Your task to perform on an android device: Open the Play Movies app and select the watchlist tab. Image 0: 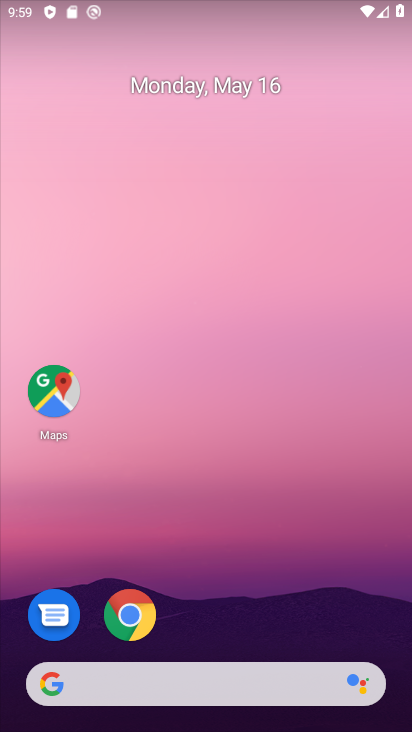
Step 0: drag from (224, 609) to (302, 23)
Your task to perform on an android device: Open the Play Movies app and select the watchlist tab. Image 1: 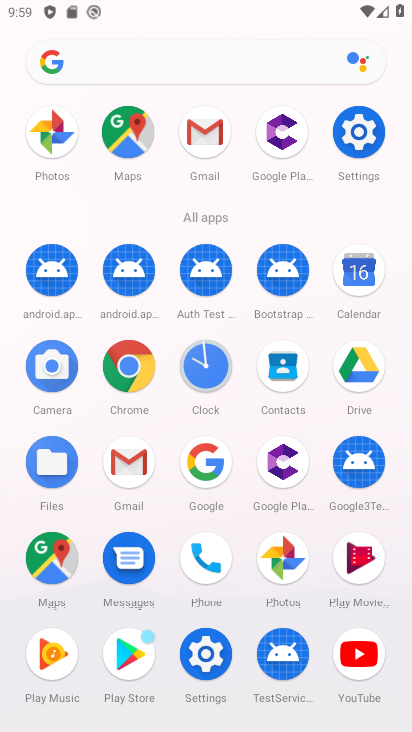
Step 1: click (351, 557)
Your task to perform on an android device: Open the Play Movies app and select the watchlist tab. Image 2: 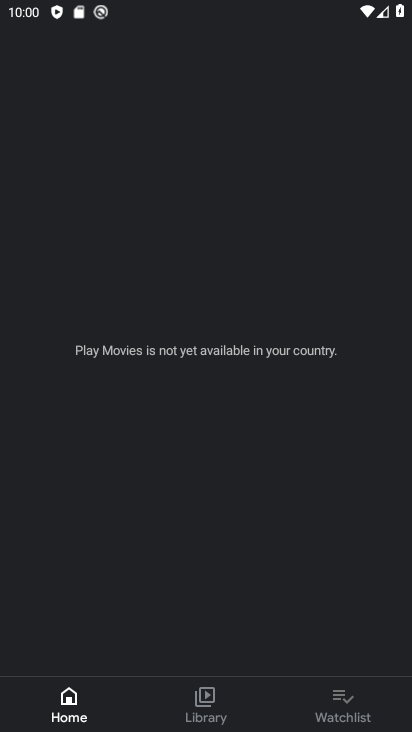
Step 2: click (345, 713)
Your task to perform on an android device: Open the Play Movies app and select the watchlist tab. Image 3: 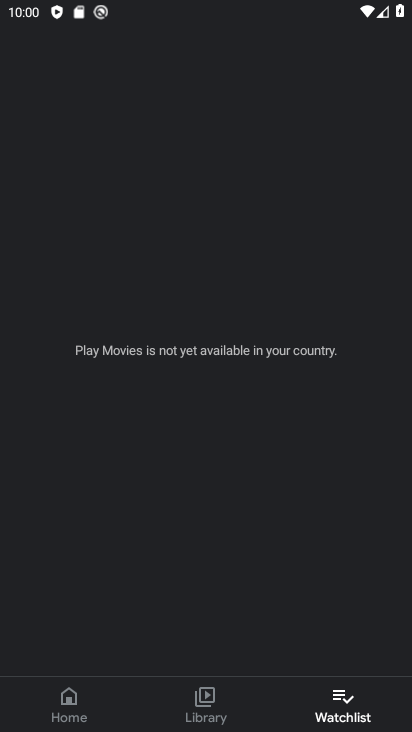
Step 3: task complete